Your task to perform on an android device: Open my contact list Image 0: 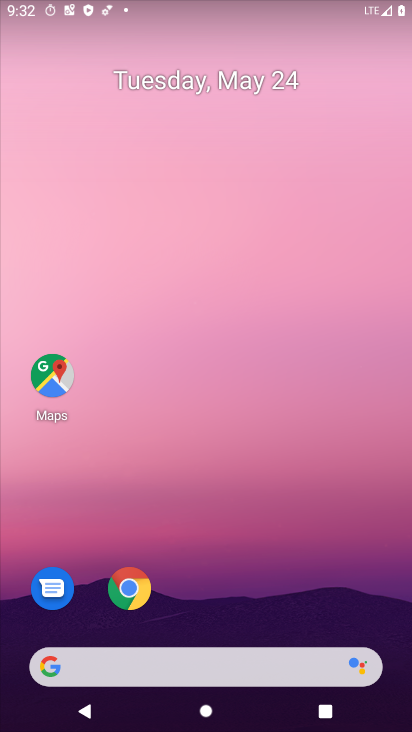
Step 0: drag from (308, 341) to (328, 12)
Your task to perform on an android device: Open my contact list Image 1: 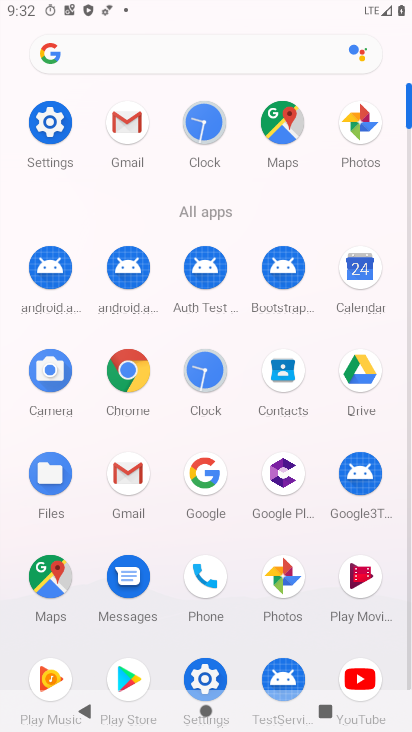
Step 1: click (280, 393)
Your task to perform on an android device: Open my contact list Image 2: 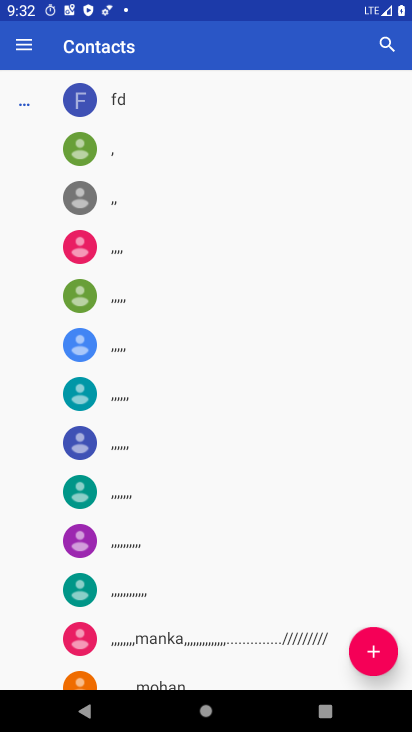
Step 2: task complete